Your task to perform on an android device: Clear all items from cart on bestbuy.com. Image 0: 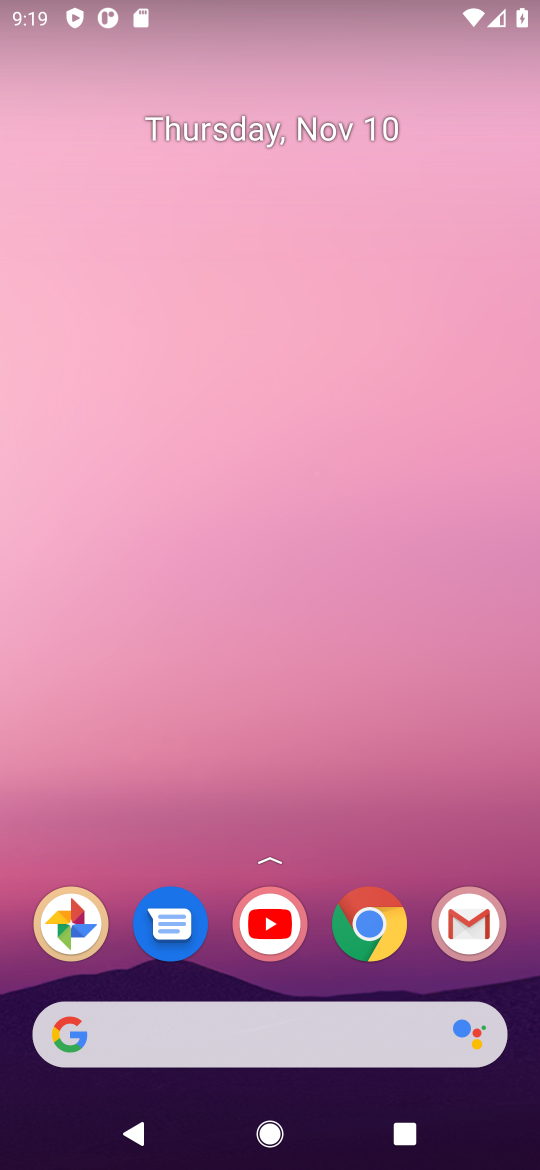
Step 0: click (388, 940)
Your task to perform on an android device: Clear all items from cart on bestbuy.com. Image 1: 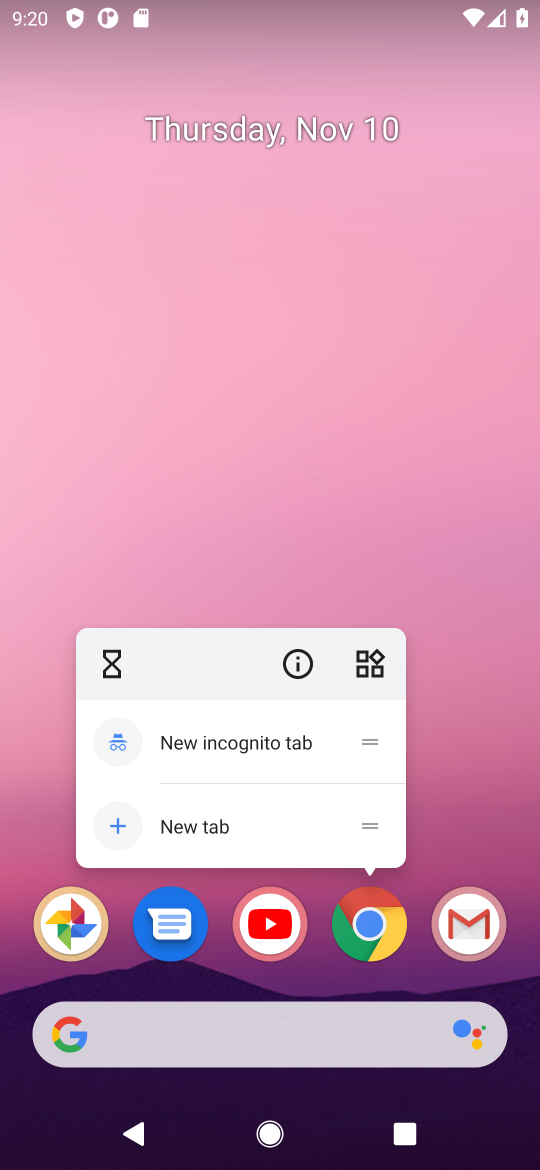
Step 1: click (388, 940)
Your task to perform on an android device: Clear all items from cart on bestbuy.com. Image 2: 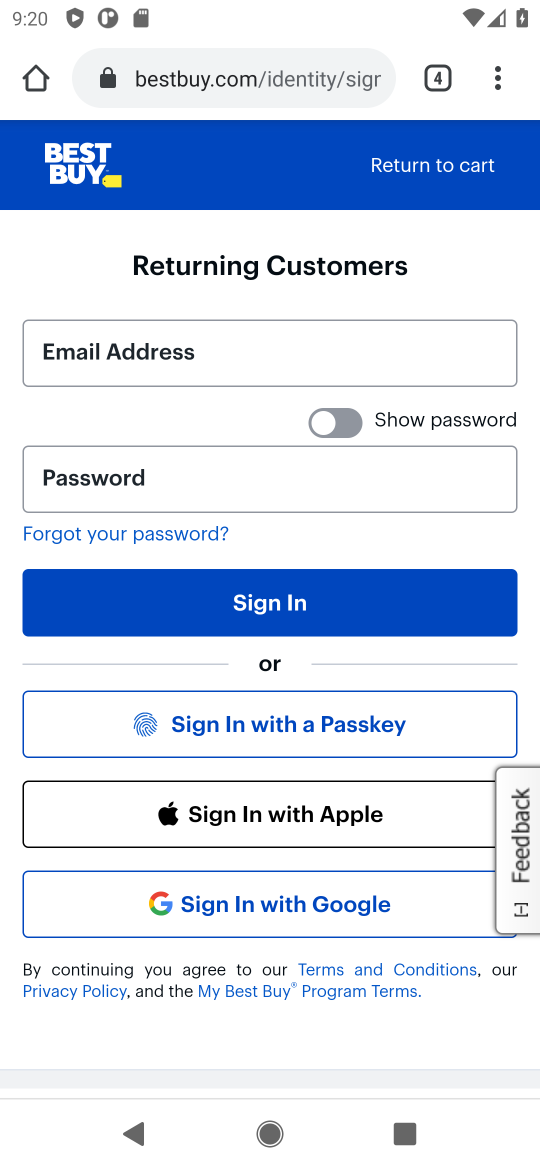
Step 2: click (361, 164)
Your task to perform on an android device: Clear all items from cart on bestbuy.com. Image 3: 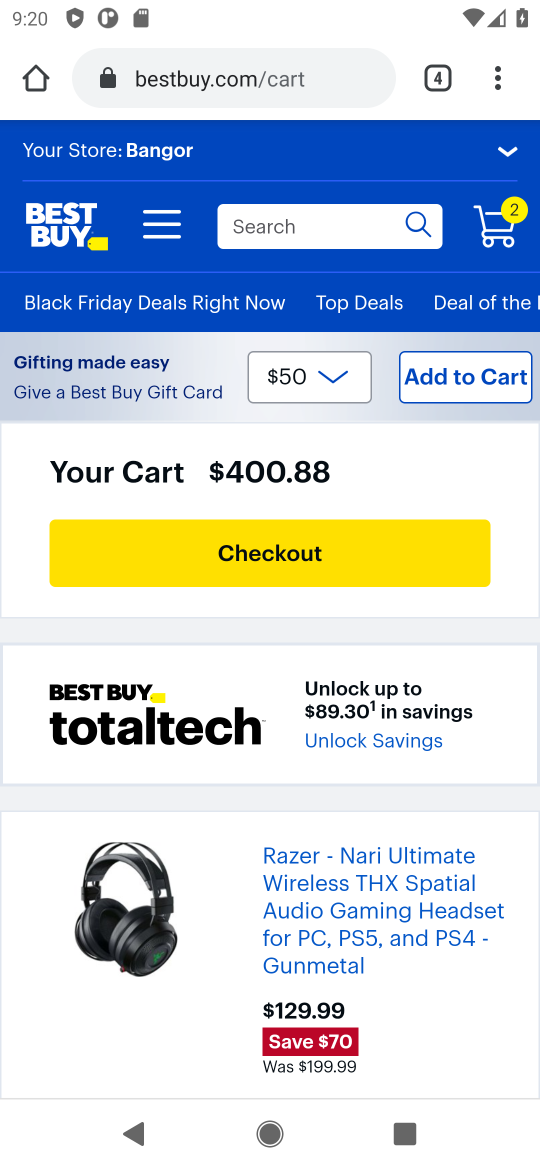
Step 3: drag from (224, 836) to (230, 362)
Your task to perform on an android device: Clear all items from cart on bestbuy.com. Image 4: 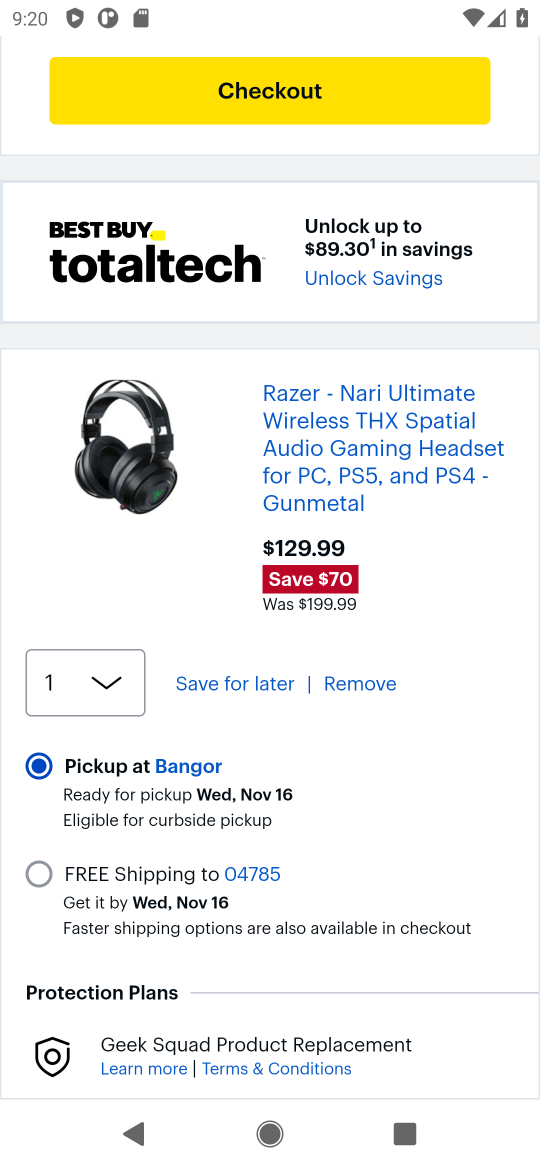
Step 4: click (364, 683)
Your task to perform on an android device: Clear all items from cart on bestbuy.com. Image 5: 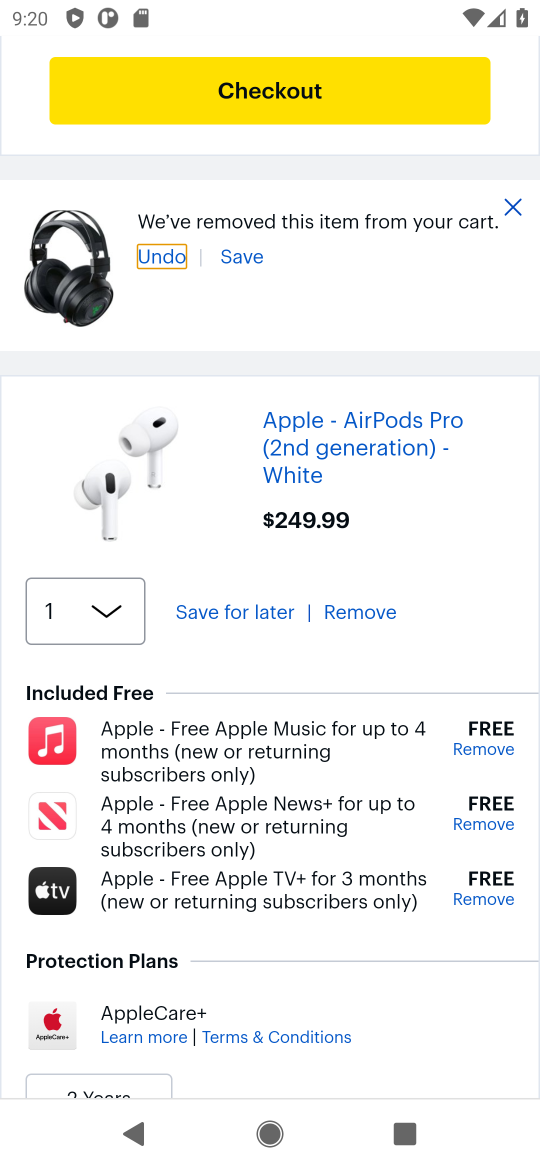
Step 5: click (356, 618)
Your task to perform on an android device: Clear all items from cart on bestbuy.com. Image 6: 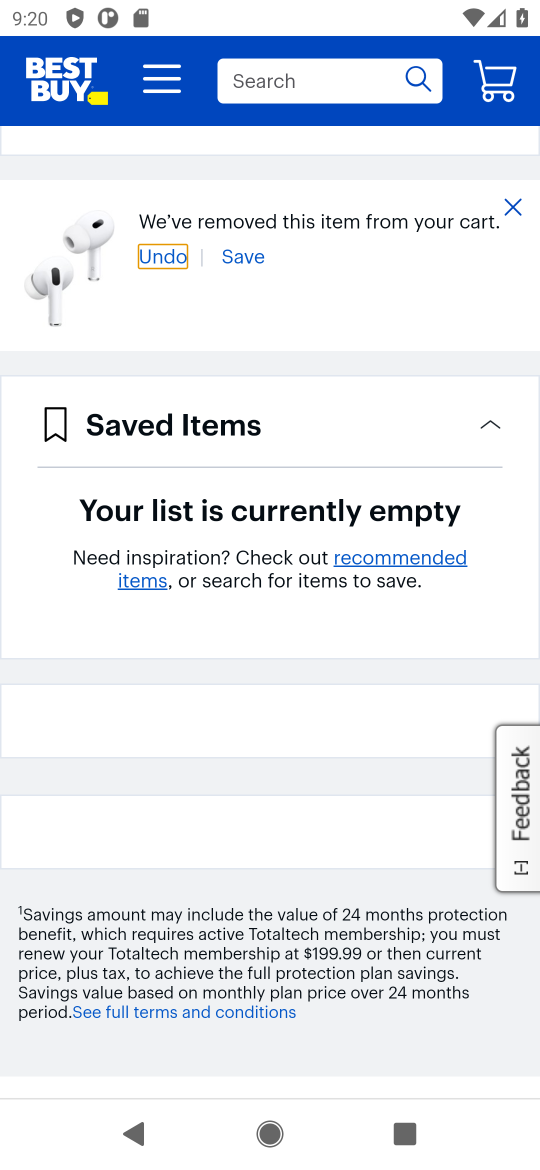
Step 6: task complete